Your task to perform on an android device: Set the phone to "Do not disturb". Image 0: 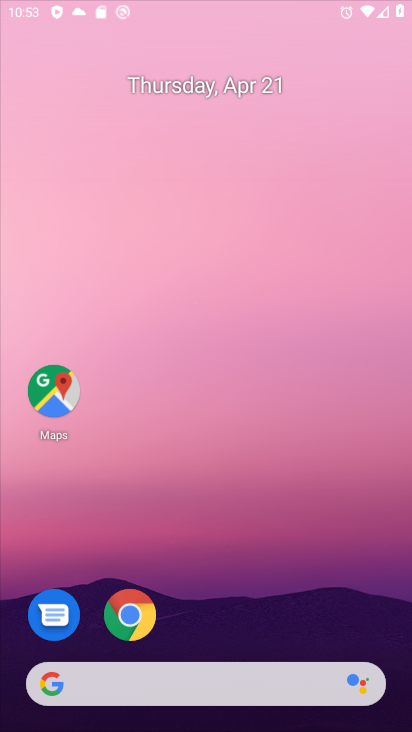
Step 0: click (295, 73)
Your task to perform on an android device: Set the phone to "Do not disturb". Image 1: 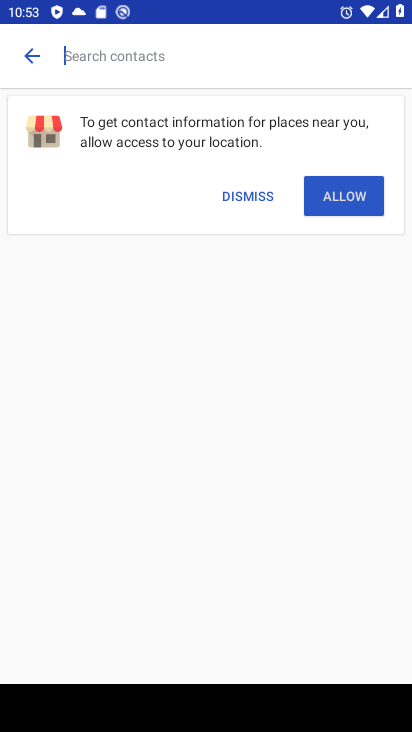
Step 1: press home button
Your task to perform on an android device: Set the phone to "Do not disturb". Image 2: 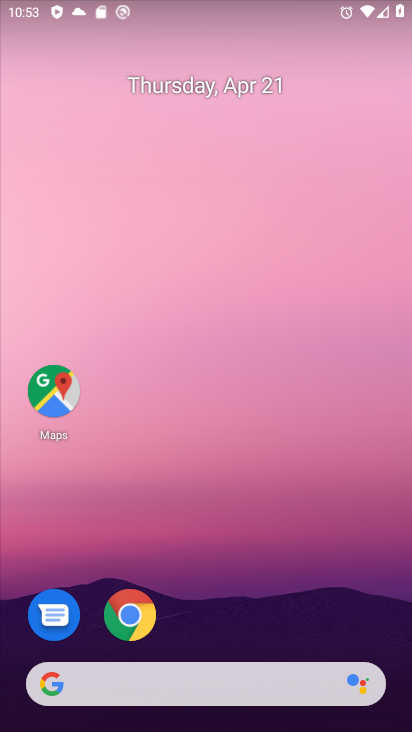
Step 2: drag from (174, 3) to (101, 535)
Your task to perform on an android device: Set the phone to "Do not disturb". Image 3: 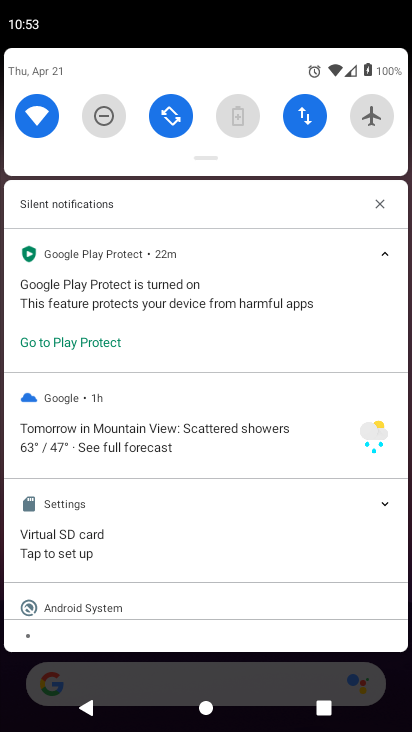
Step 3: click (100, 107)
Your task to perform on an android device: Set the phone to "Do not disturb". Image 4: 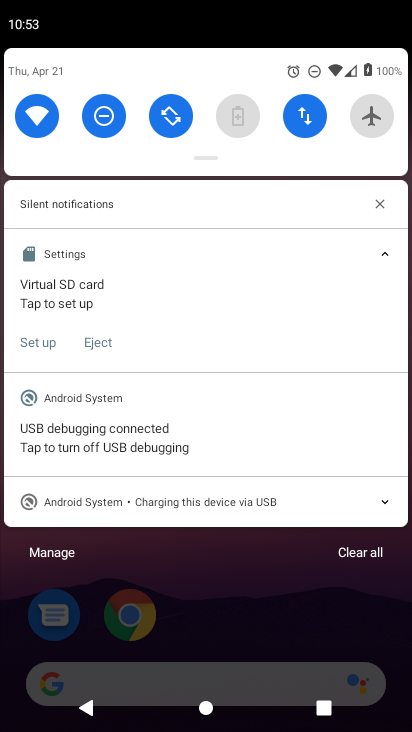
Step 4: task complete